Your task to perform on an android device: Open the map Image 0: 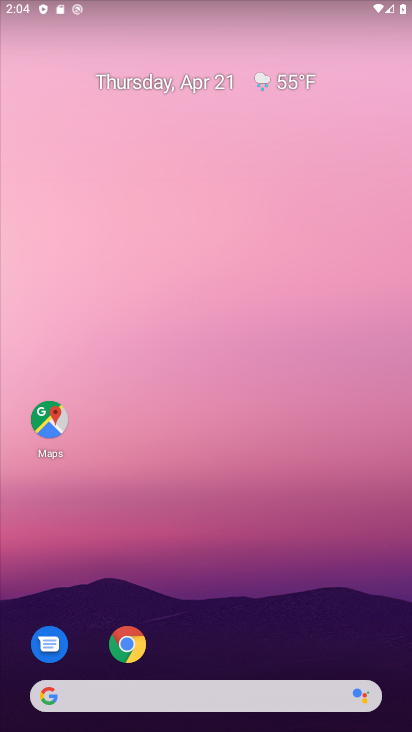
Step 0: click (57, 413)
Your task to perform on an android device: Open the map Image 1: 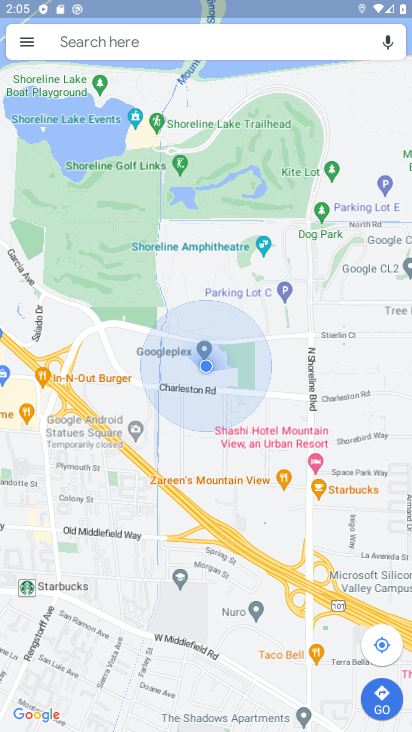
Step 1: task complete